Your task to perform on an android device: Set the phone to "Do not disturb". Image 0: 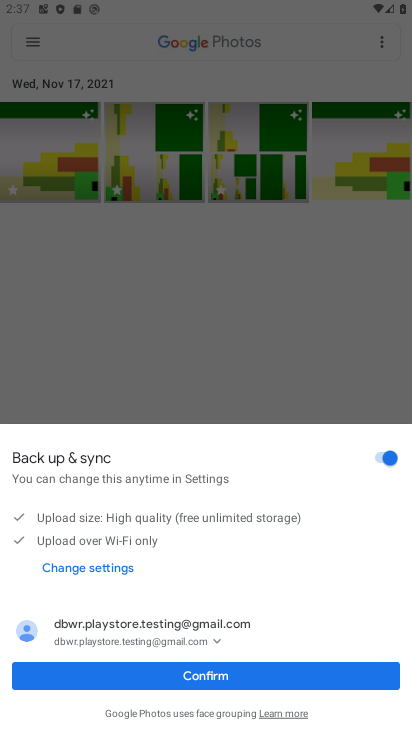
Step 0: press home button
Your task to perform on an android device: Set the phone to "Do not disturb". Image 1: 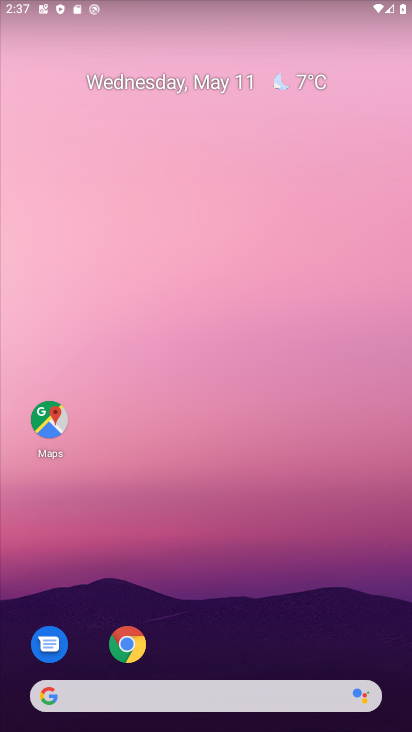
Step 1: drag from (188, 579) to (218, 176)
Your task to perform on an android device: Set the phone to "Do not disturb". Image 2: 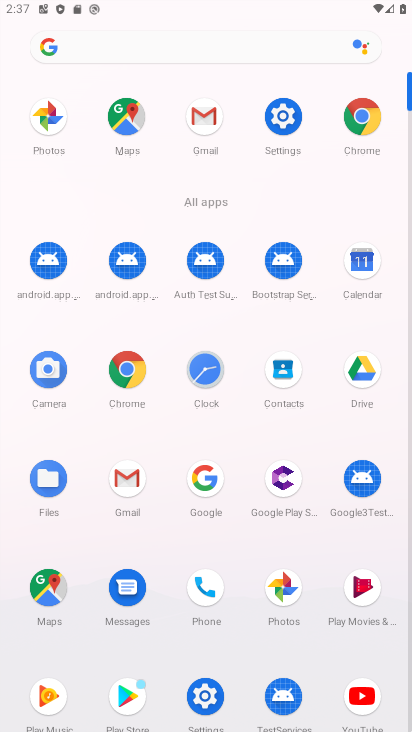
Step 2: click (272, 124)
Your task to perform on an android device: Set the phone to "Do not disturb". Image 3: 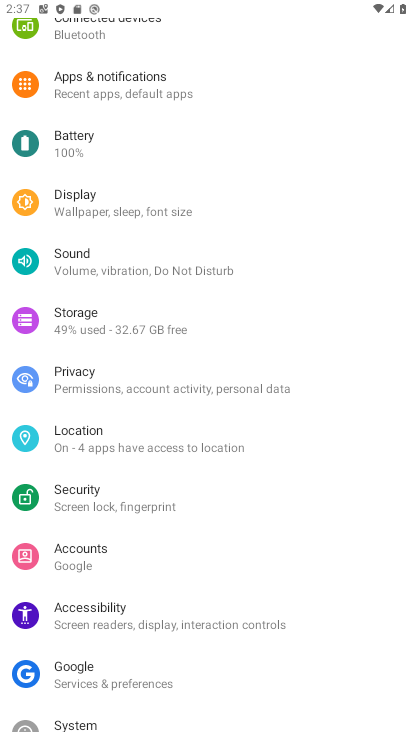
Step 3: click (106, 255)
Your task to perform on an android device: Set the phone to "Do not disturb". Image 4: 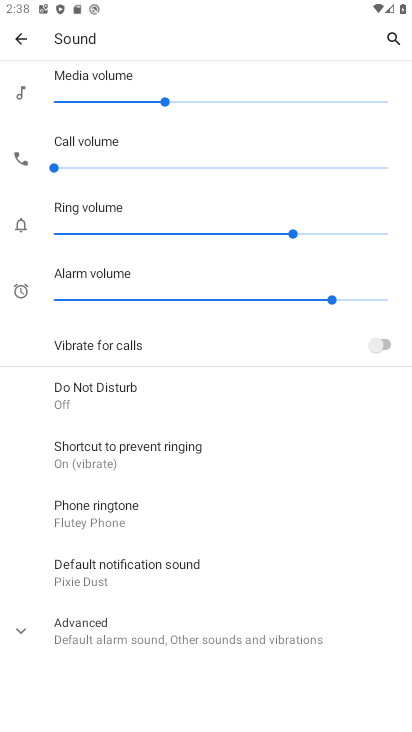
Step 4: click (130, 384)
Your task to perform on an android device: Set the phone to "Do not disturb". Image 5: 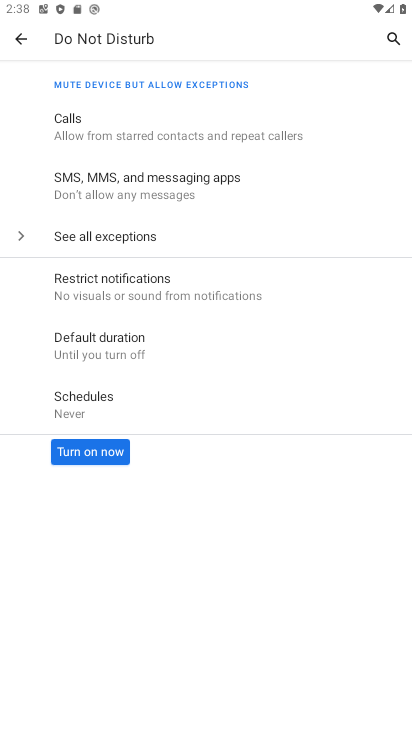
Step 5: click (95, 458)
Your task to perform on an android device: Set the phone to "Do not disturb". Image 6: 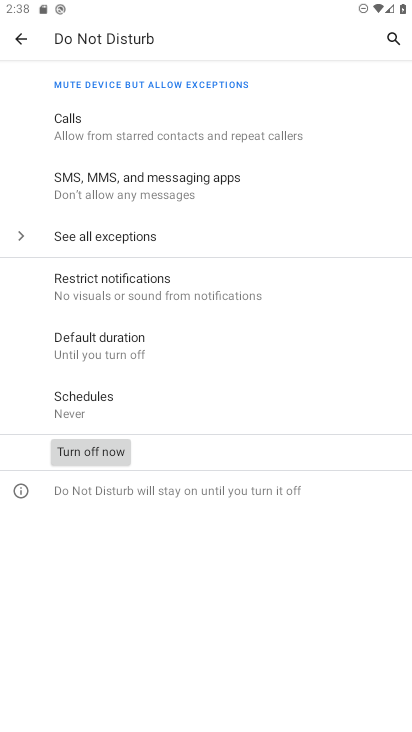
Step 6: task complete